Your task to perform on an android device: check the backup settings in the google photos Image 0: 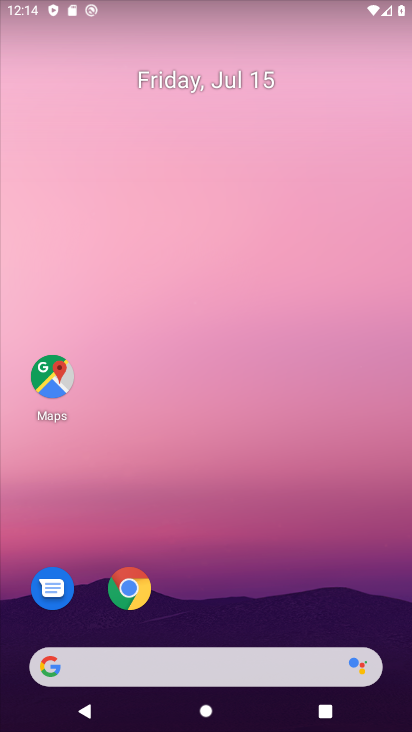
Step 0: drag from (251, 587) to (300, 50)
Your task to perform on an android device: check the backup settings in the google photos Image 1: 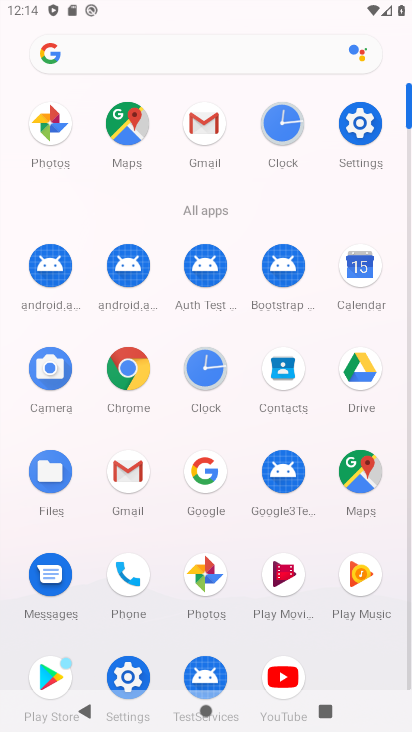
Step 1: click (54, 125)
Your task to perform on an android device: check the backup settings in the google photos Image 2: 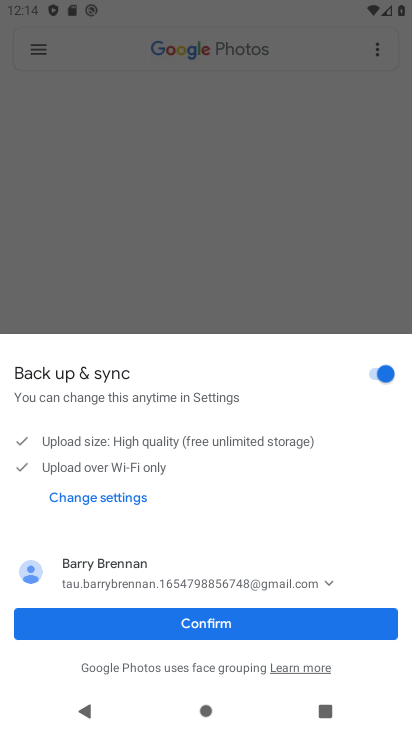
Step 2: click (263, 627)
Your task to perform on an android device: check the backup settings in the google photos Image 3: 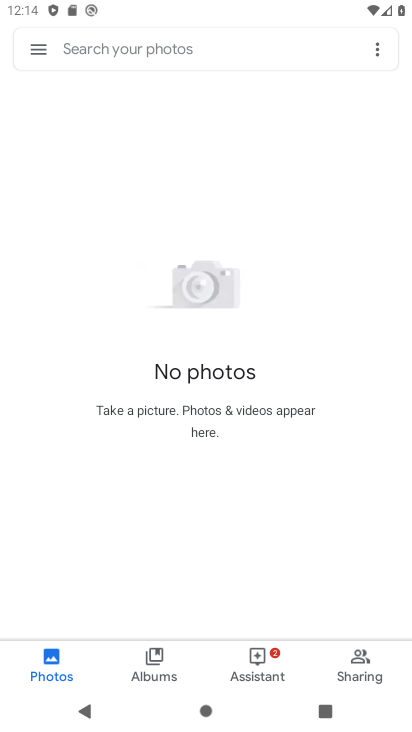
Step 3: click (39, 47)
Your task to perform on an android device: check the backup settings in the google photos Image 4: 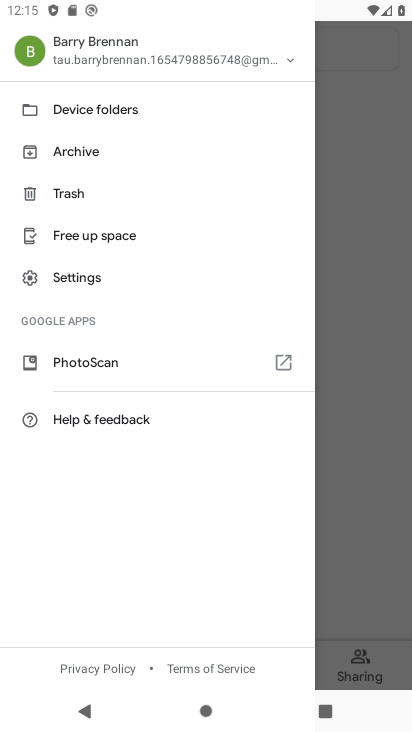
Step 4: click (83, 279)
Your task to perform on an android device: check the backup settings in the google photos Image 5: 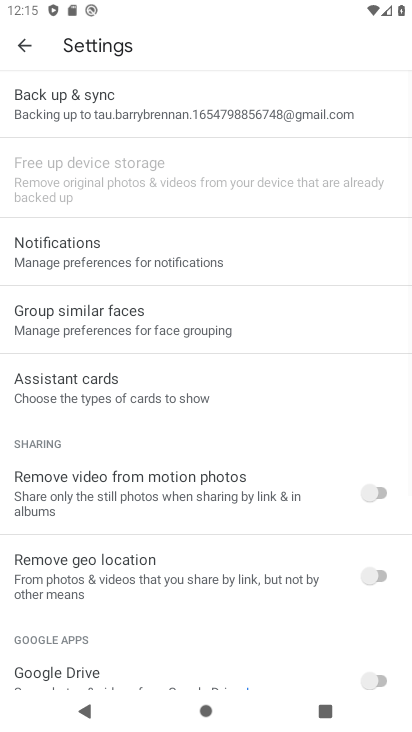
Step 5: click (146, 125)
Your task to perform on an android device: check the backup settings in the google photos Image 6: 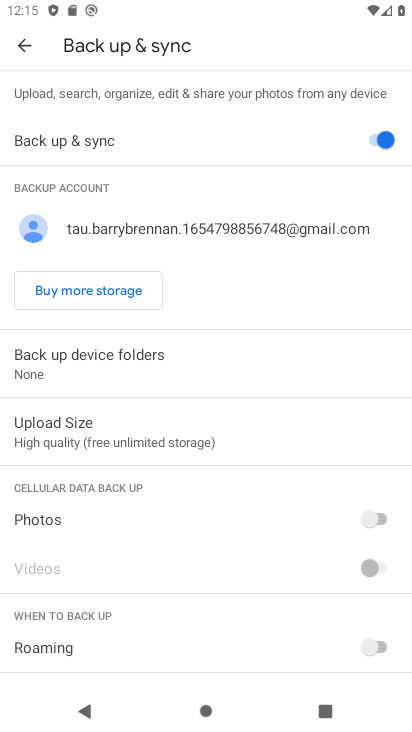
Step 6: task complete